Your task to perform on an android device: change keyboard looks Image 0: 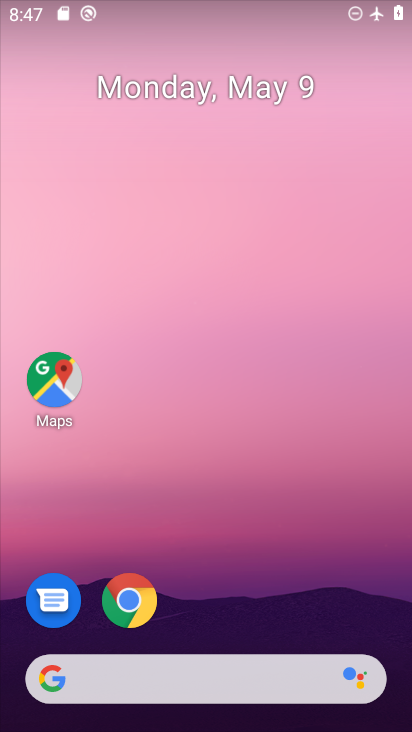
Step 0: drag from (288, 522) to (210, 42)
Your task to perform on an android device: change keyboard looks Image 1: 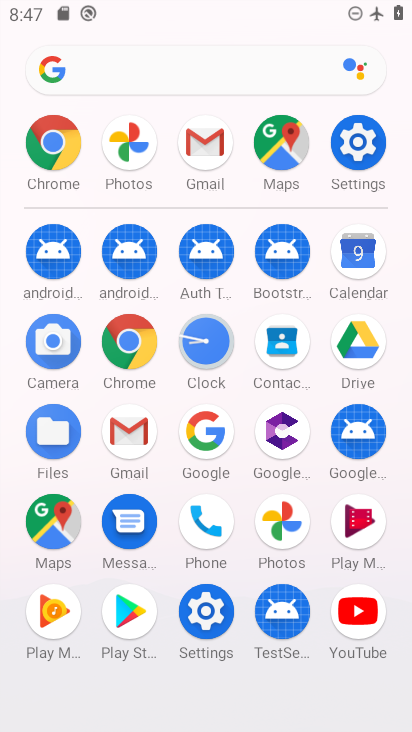
Step 1: click (201, 606)
Your task to perform on an android device: change keyboard looks Image 2: 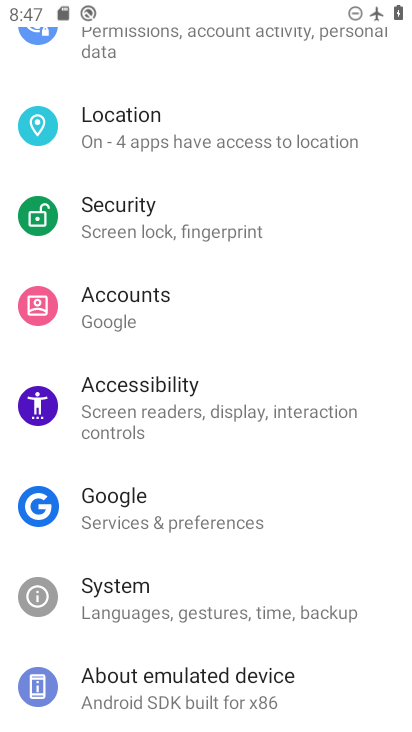
Step 2: drag from (274, 571) to (259, 137)
Your task to perform on an android device: change keyboard looks Image 3: 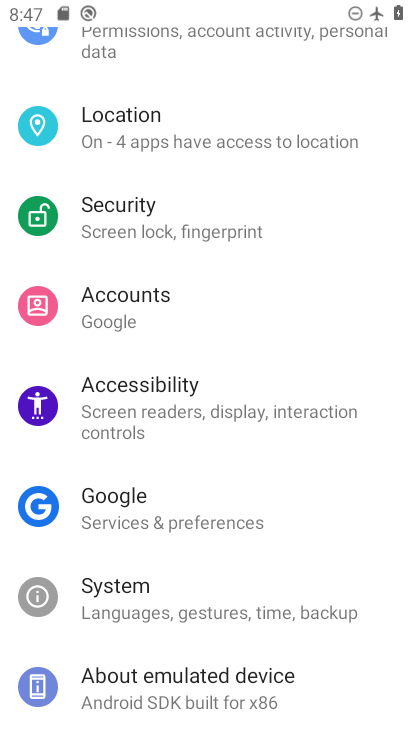
Step 3: click (214, 598)
Your task to perform on an android device: change keyboard looks Image 4: 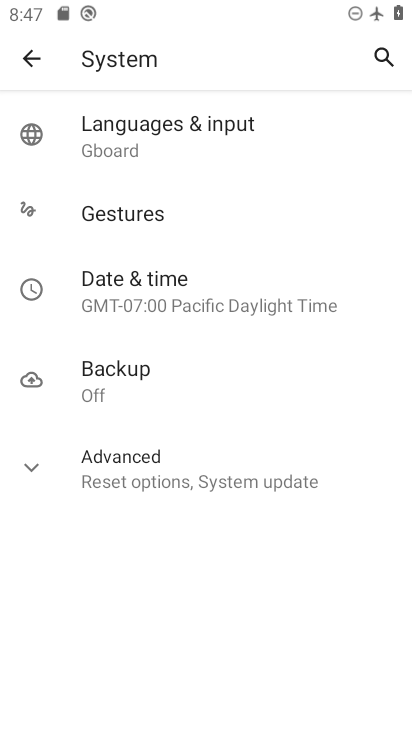
Step 4: click (49, 463)
Your task to perform on an android device: change keyboard looks Image 5: 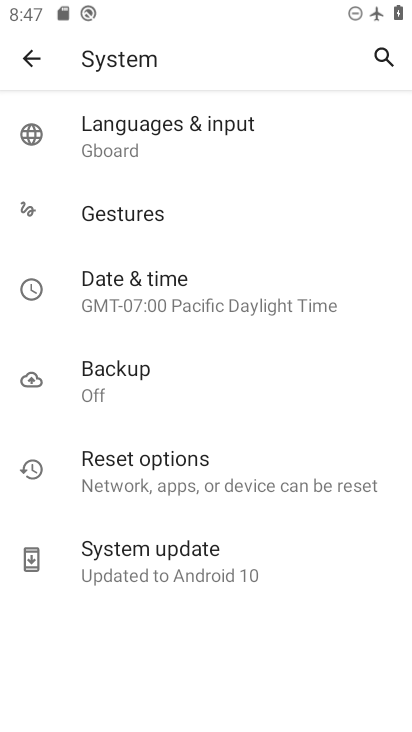
Step 5: click (182, 135)
Your task to perform on an android device: change keyboard looks Image 6: 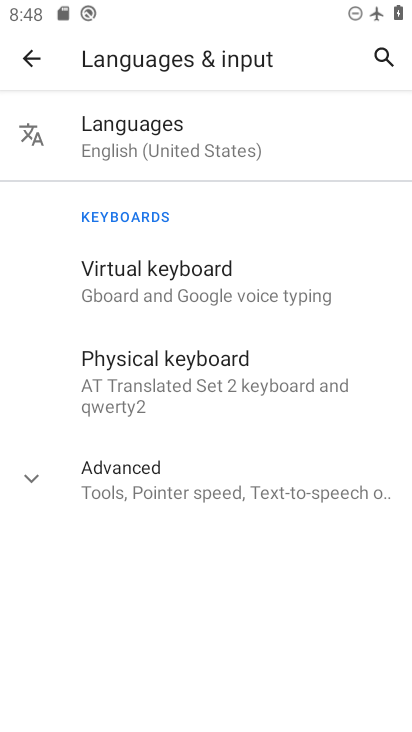
Step 6: click (186, 286)
Your task to perform on an android device: change keyboard looks Image 7: 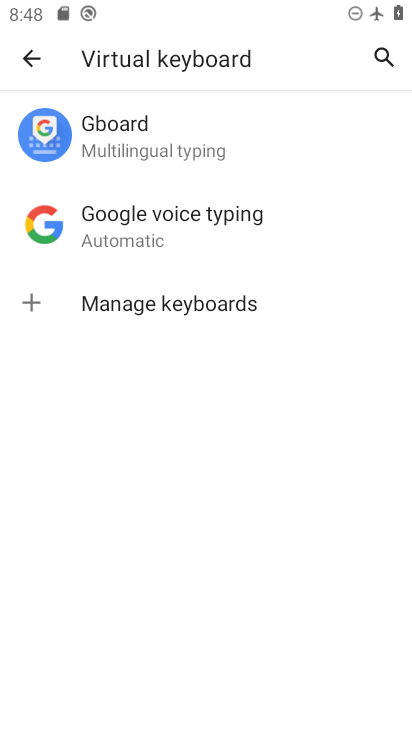
Step 7: click (196, 144)
Your task to perform on an android device: change keyboard looks Image 8: 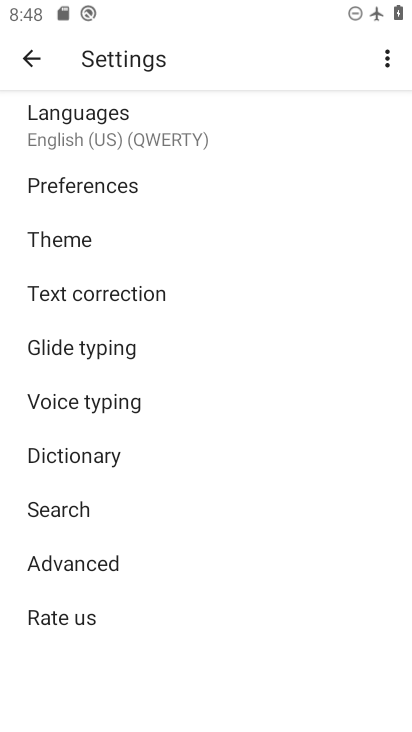
Step 8: click (133, 232)
Your task to perform on an android device: change keyboard looks Image 9: 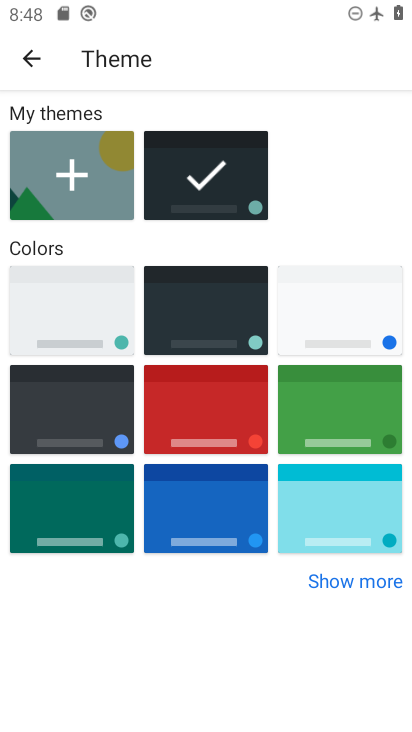
Step 9: click (342, 445)
Your task to perform on an android device: change keyboard looks Image 10: 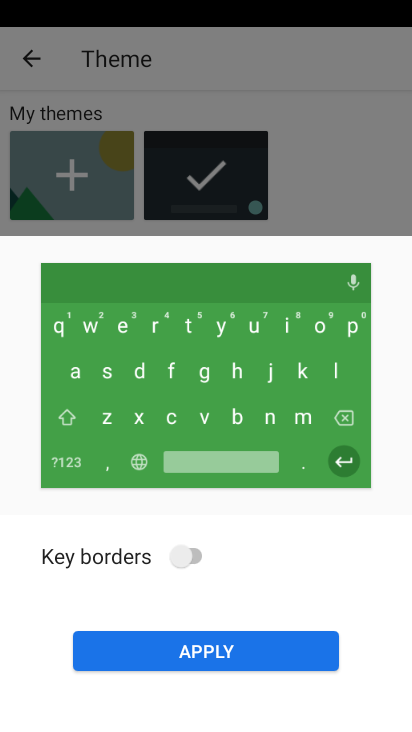
Step 10: click (254, 650)
Your task to perform on an android device: change keyboard looks Image 11: 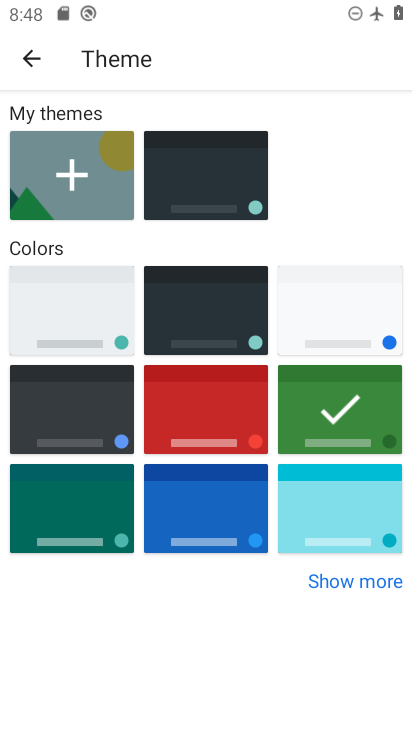
Step 11: task complete